Your task to perform on an android device: turn on bluetooth scan Image 0: 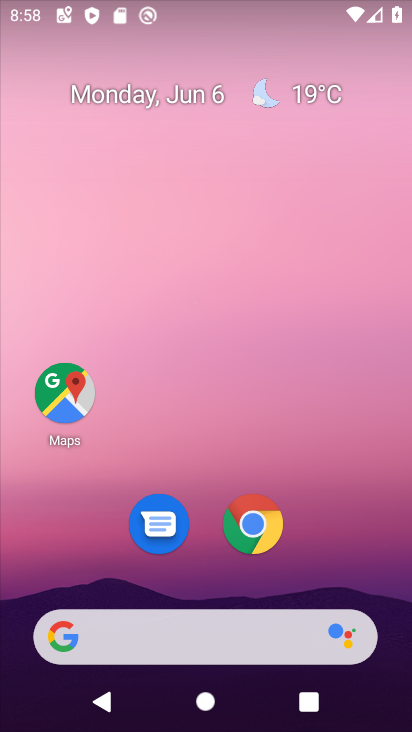
Step 0: drag from (219, 435) to (226, 6)
Your task to perform on an android device: turn on bluetooth scan Image 1: 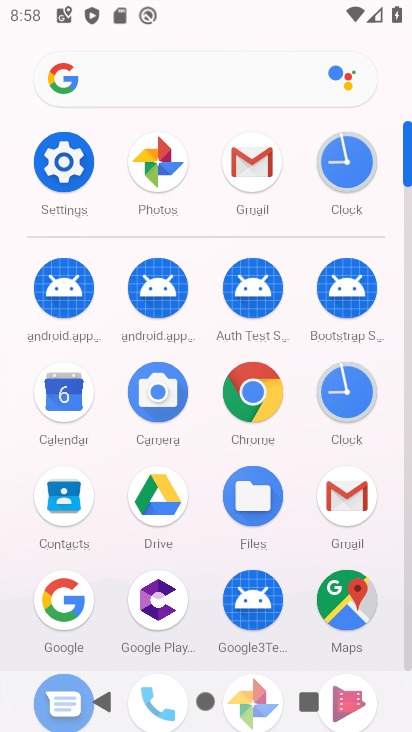
Step 1: click (72, 159)
Your task to perform on an android device: turn on bluetooth scan Image 2: 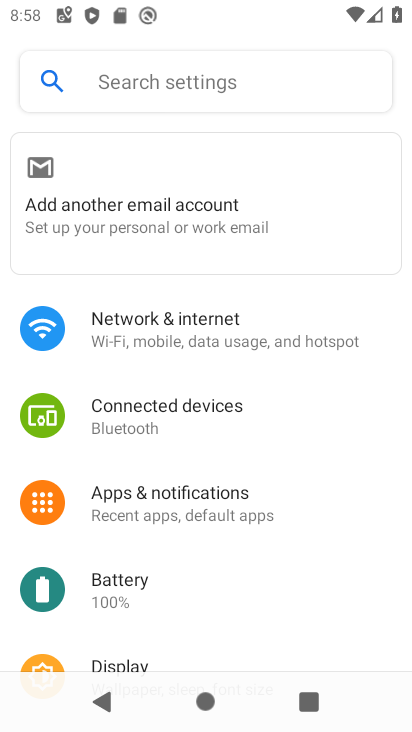
Step 2: drag from (234, 566) to (202, 124)
Your task to perform on an android device: turn on bluetooth scan Image 3: 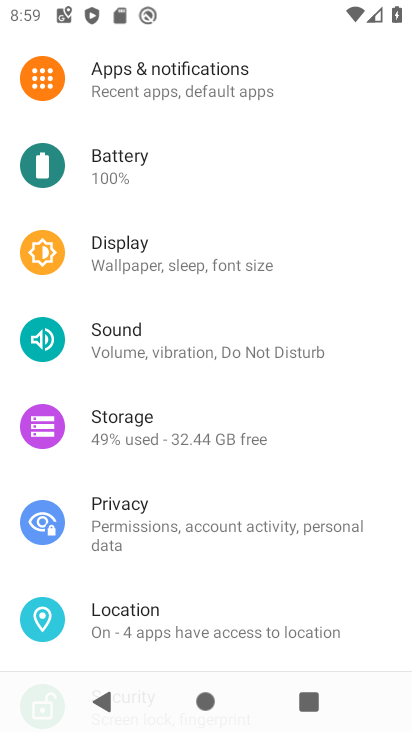
Step 3: click (287, 606)
Your task to perform on an android device: turn on bluetooth scan Image 4: 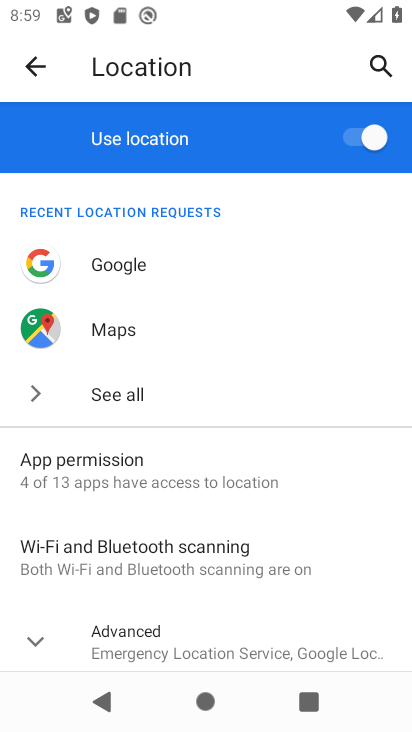
Step 4: click (283, 556)
Your task to perform on an android device: turn on bluetooth scan Image 5: 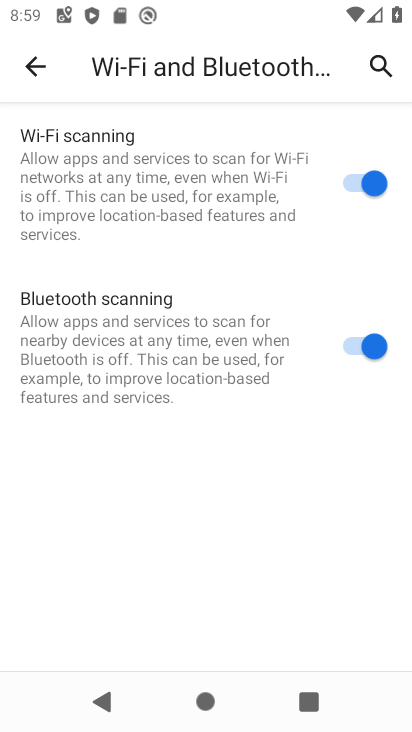
Step 5: task complete